Your task to perform on an android device: Open ESPN.com Image 0: 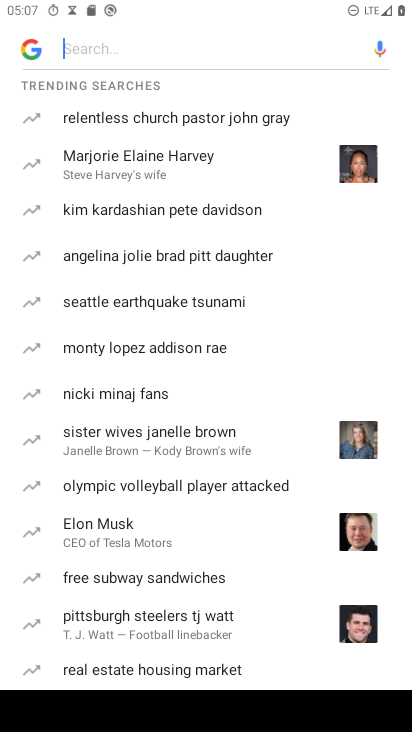
Step 0: press home button
Your task to perform on an android device: Open ESPN.com Image 1: 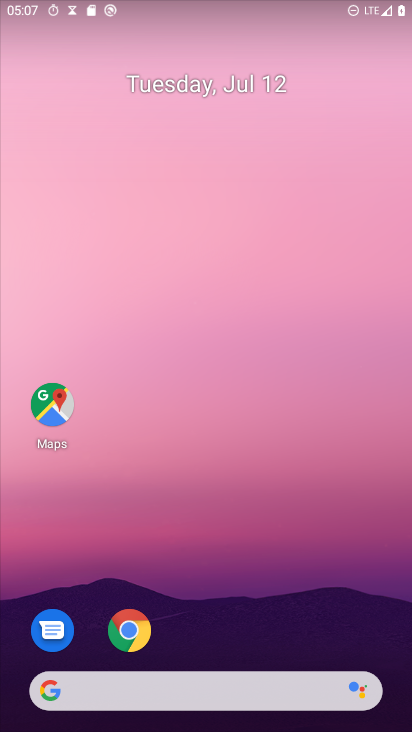
Step 1: drag from (258, 685) to (393, 108)
Your task to perform on an android device: Open ESPN.com Image 2: 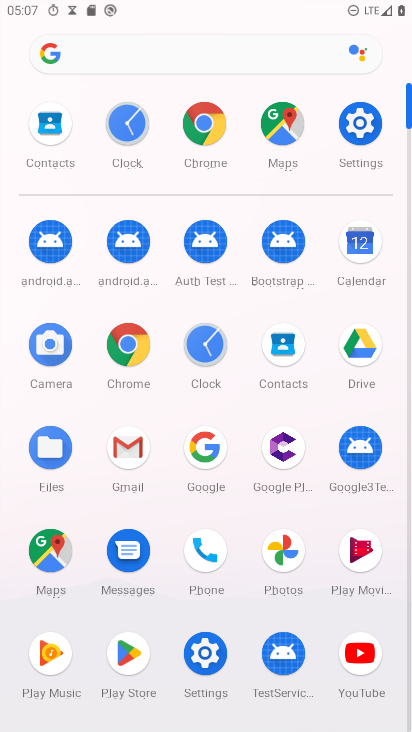
Step 2: click (139, 351)
Your task to perform on an android device: Open ESPN.com Image 3: 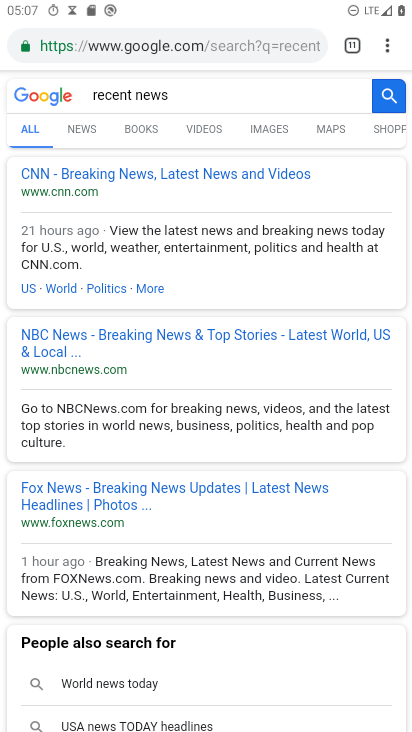
Step 3: click (231, 49)
Your task to perform on an android device: Open ESPN.com Image 4: 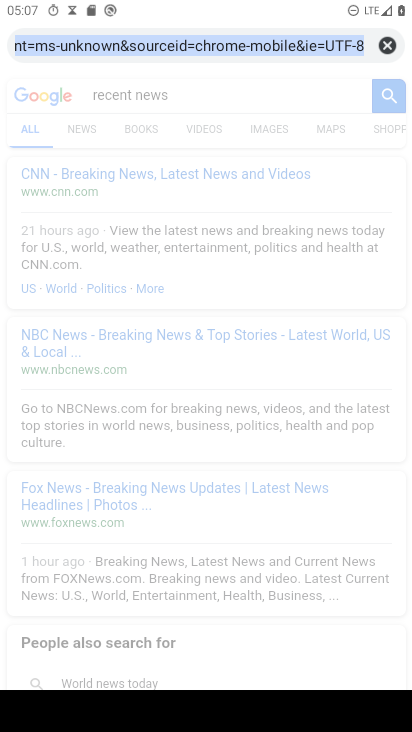
Step 4: type "espn.com"
Your task to perform on an android device: Open ESPN.com Image 5: 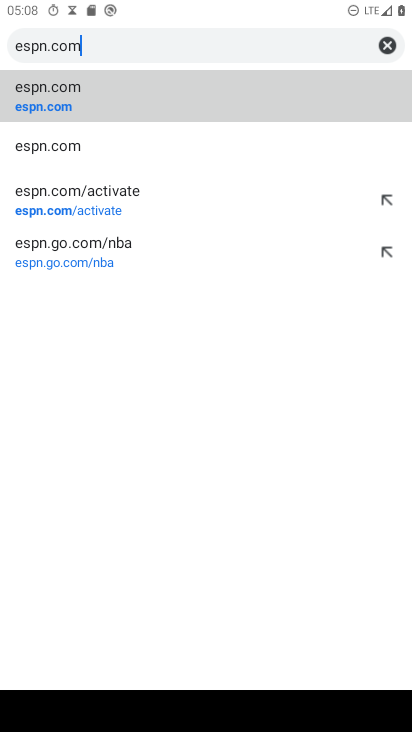
Step 5: click (40, 93)
Your task to perform on an android device: Open ESPN.com Image 6: 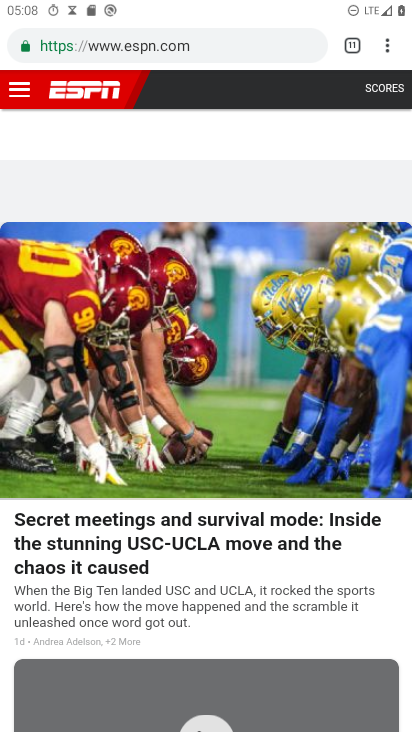
Step 6: task complete